Your task to perform on an android device: Show me popular videos on Youtube Image 0: 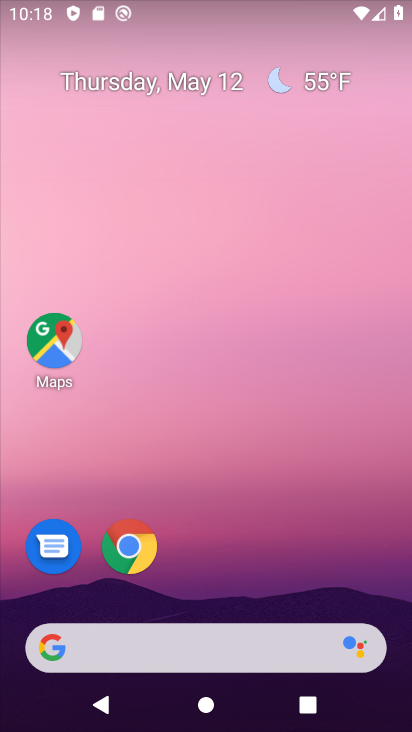
Step 0: drag from (163, 607) to (164, 151)
Your task to perform on an android device: Show me popular videos on Youtube Image 1: 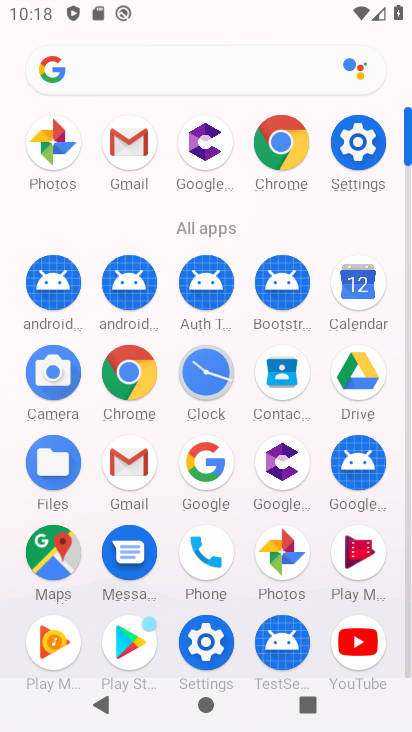
Step 1: click (354, 643)
Your task to perform on an android device: Show me popular videos on Youtube Image 2: 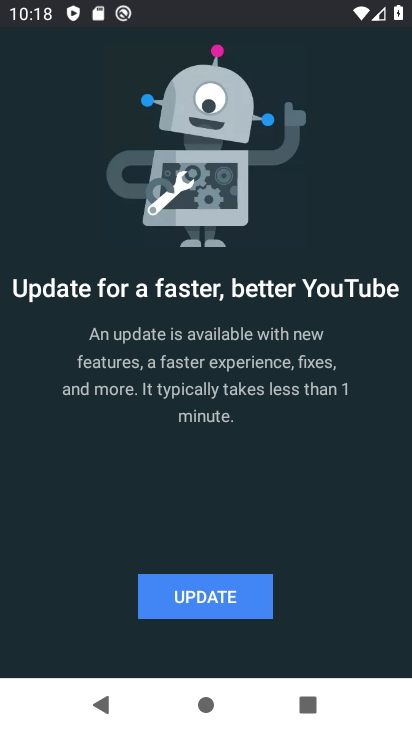
Step 2: click (227, 593)
Your task to perform on an android device: Show me popular videos on Youtube Image 3: 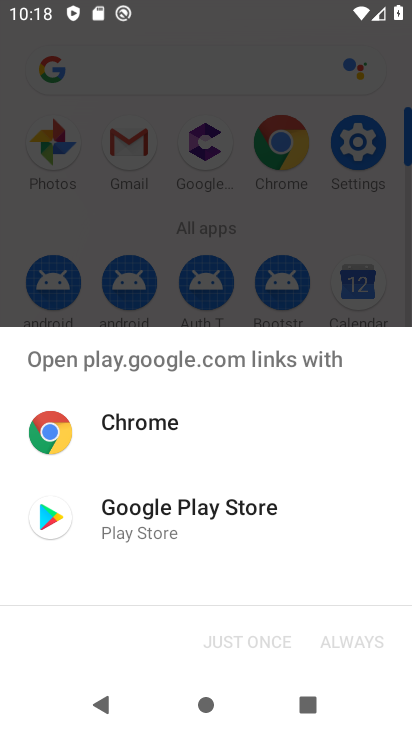
Step 3: click (164, 520)
Your task to perform on an android device: Show me popular videos on Youtube Image 4: 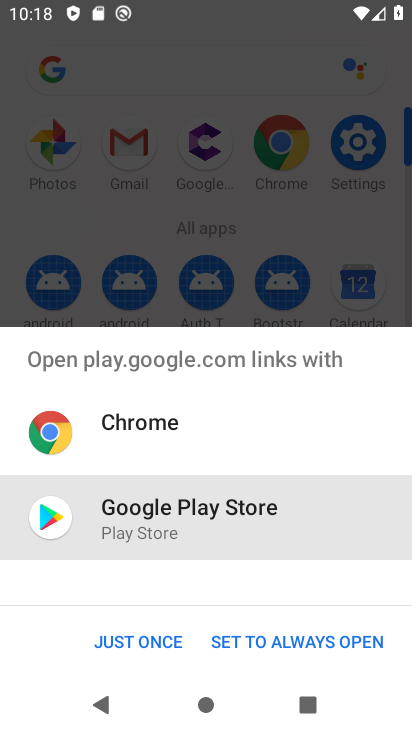
Step 4: click (156, 640)
Your task to perform on an android device: Show me popular videos on Youtube Image 5: 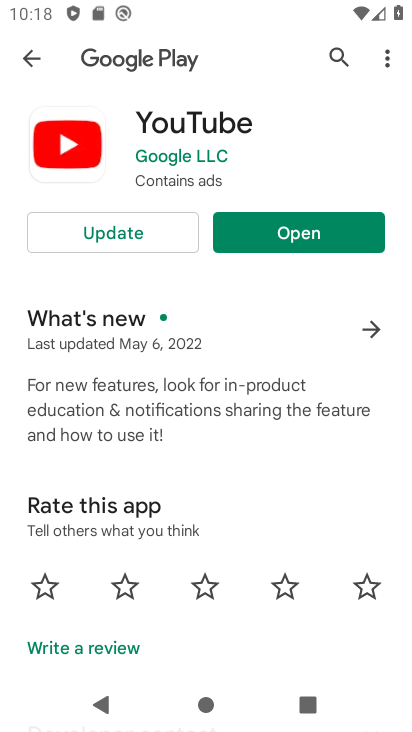
Step 5: click (295, 238)
Your task to perform on an android device: Show me popular videos on Youtube Image 6: 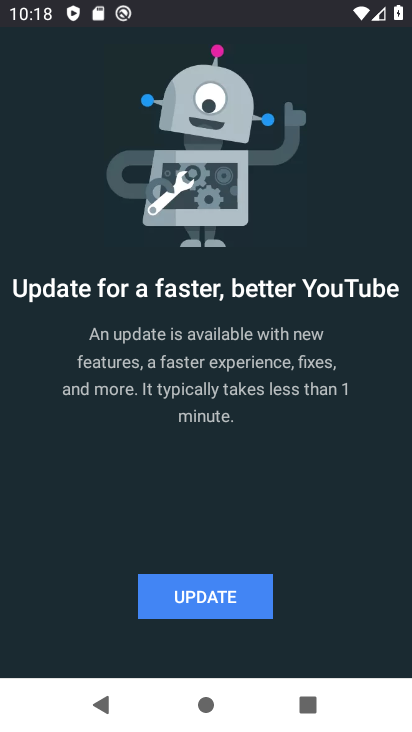
Step 6: click (204, 605)
Your task to perform on an android device: Show me popular videos on Youtube Image 7: 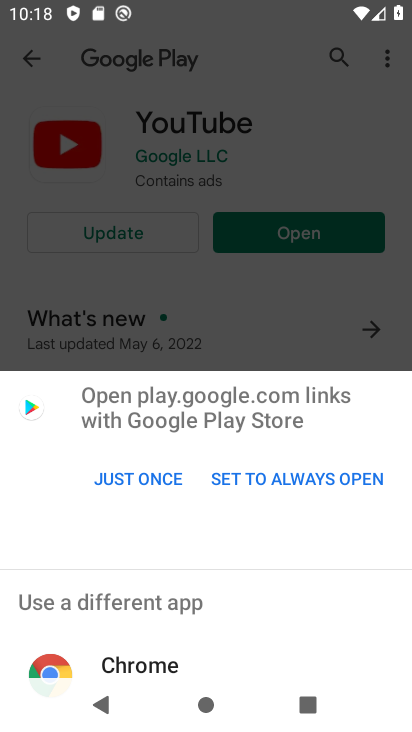
Step 7: click (131, 473)
Your task to perform on an android device: Show me popular videos on Youtube Image 8: 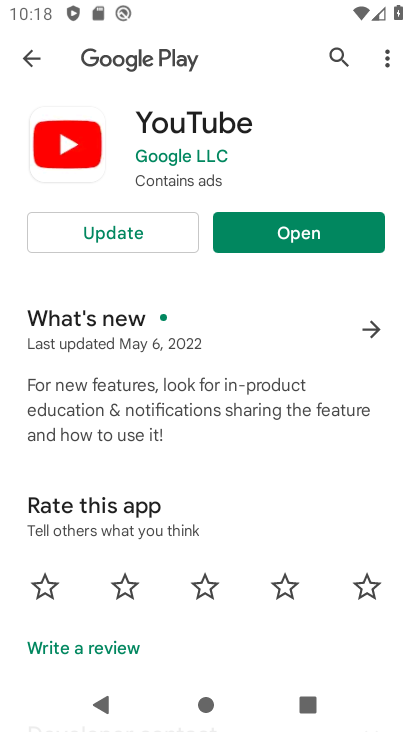
Step 8: click (103, 242)
Your task to perform on an android device: Show me popular videos on Youtube Image 9: 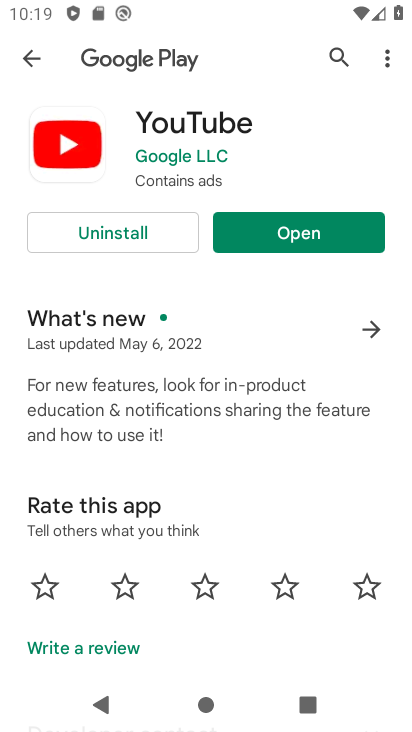
Step 9: click (254, 232)
Your task to perform on an android device: Show me popular videos on Youtube Image 10: 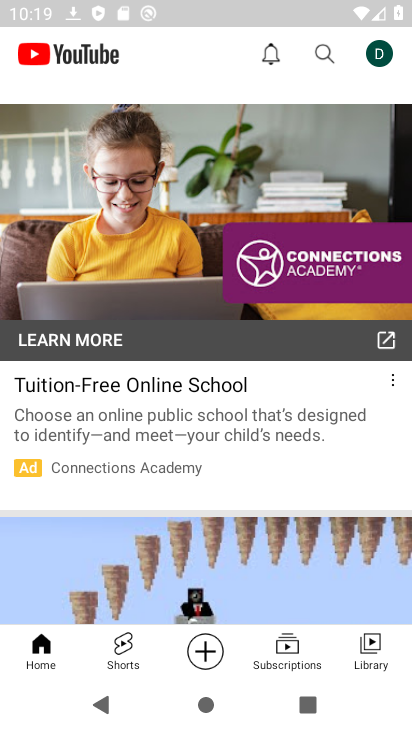
Step 10: click (329, 58)
Your task to perform on an android device: Show me popular videos on Youtube Image 11: 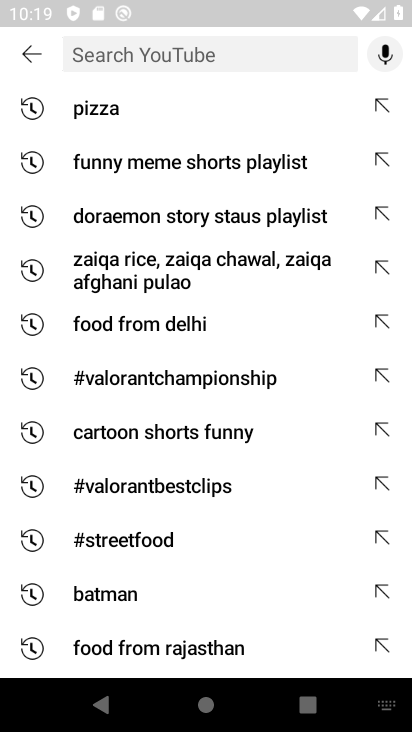
Step 11: type "popular videos"
Your task to perform on an android device: Show me popular videos on Youtube Image 12: 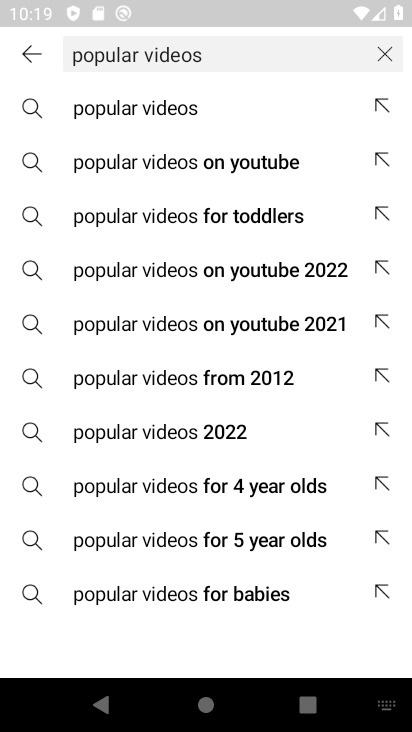
Step 12: click (122, 116)
Your task to perform on an android device: Show me popular videos on Youtube Image 13: 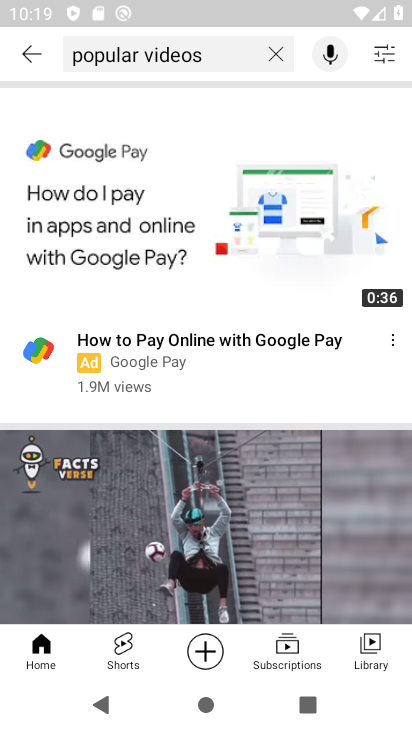
Step 13: task complete